Your task to perform on an android device: choose inbox layout in the gmail app Image 0: 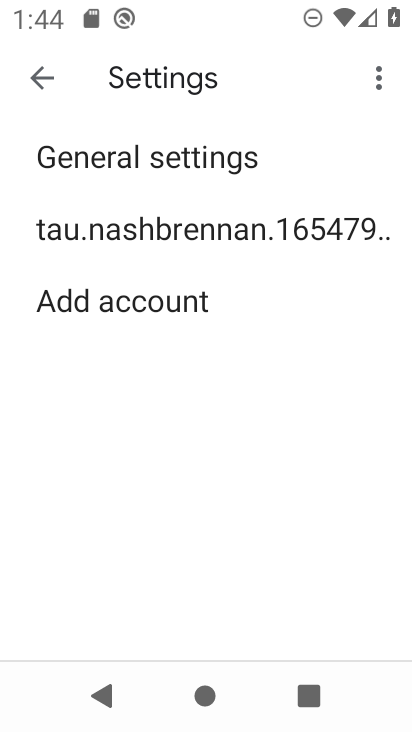
Step 0: press home button
Your task to perform on an android device: choose inbox layout in the gmail app Image 1: 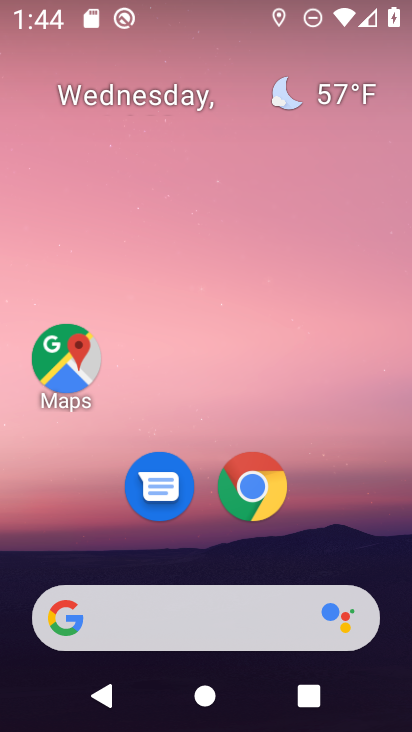
Step 1: drag from (364, 520) to (387, 77)
Your task to perform on an android device: choose inbox layout in the gmail app Image 2: 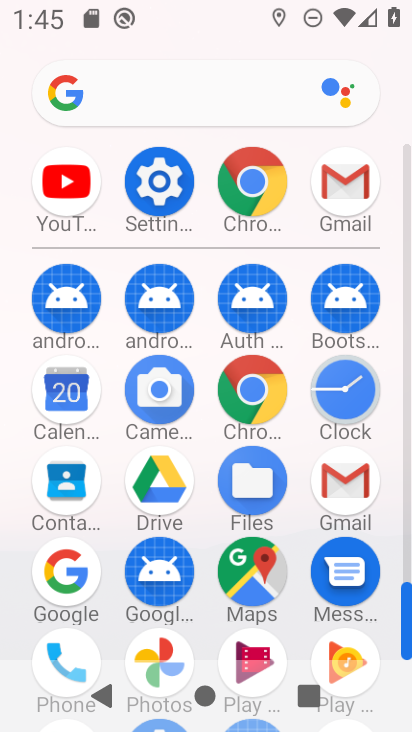
Step 2: click (352, 483)
Your task to perform on an android device: choose inbox layout in the gmail app Image 3: 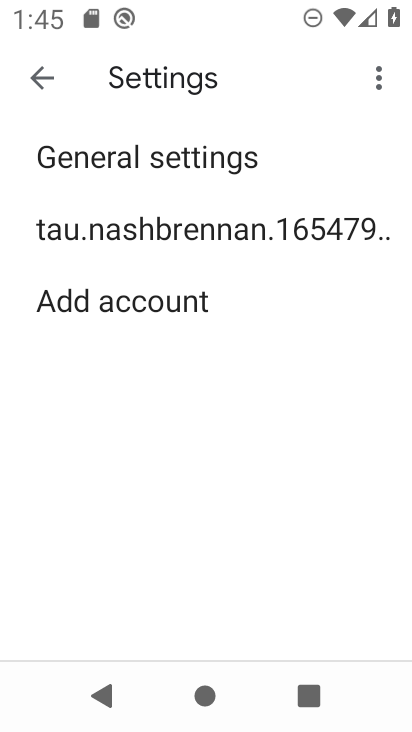
Step 3: click (224, 215)
Your task to perform on an android device: choose inbox layout in the gmail app Image 4: 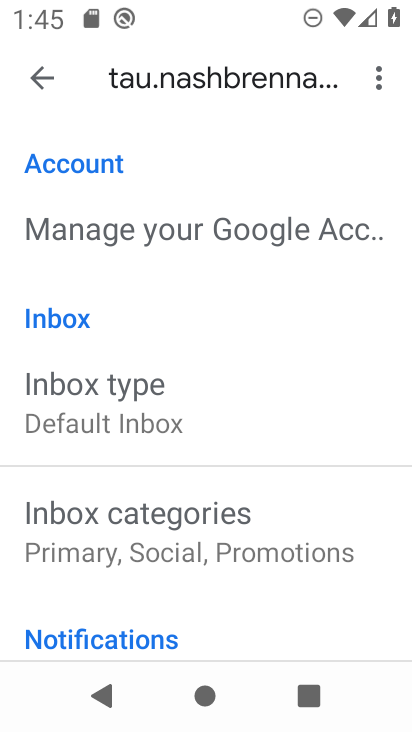
Step 4: click (143, 404)
Your task to perform on an android device: choose inbox layout in the gmail app Image 5: 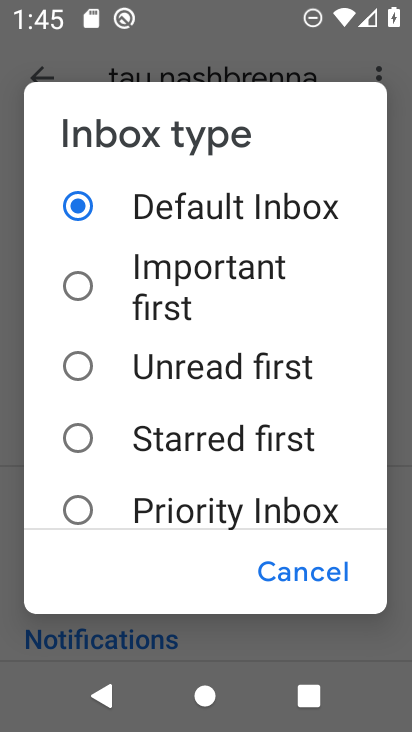
Step 5: click (175, 379)
Your task to perform on an android device: choose inbox layout in the gmail app Image 6: 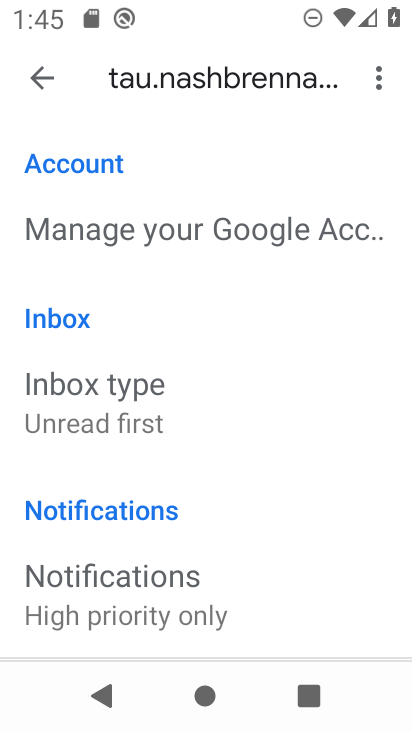
Step 6: task complete